Your task to perform on an android device: What's on my calendar tomorrow? Image 0: 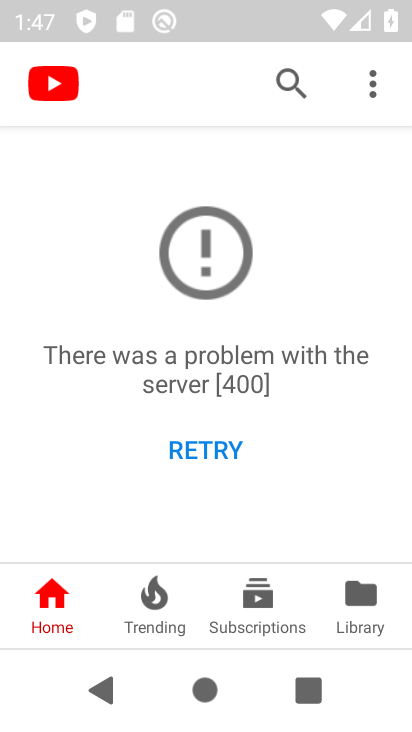
Step 0: click (98, 684)
Your task to perform on an android device: What's on my calendar tomorrow? Image 1: 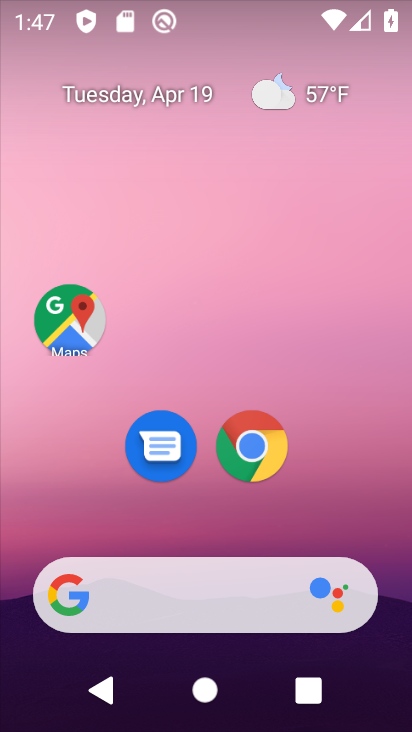
Step 1: drag from (307, 501) to (310, 53)
Your task to perform on an android device: What's on my calendar tomorrow? Image 2: 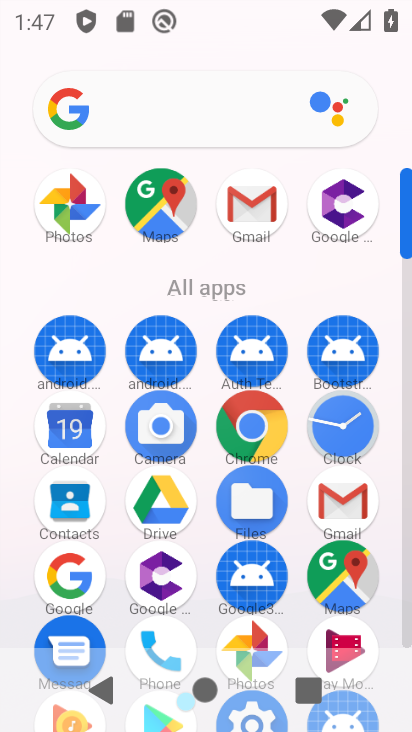
Step 2: click (78, 435)
Your task to perform on an android device: What's on my calendar tomorrow? Image 3: 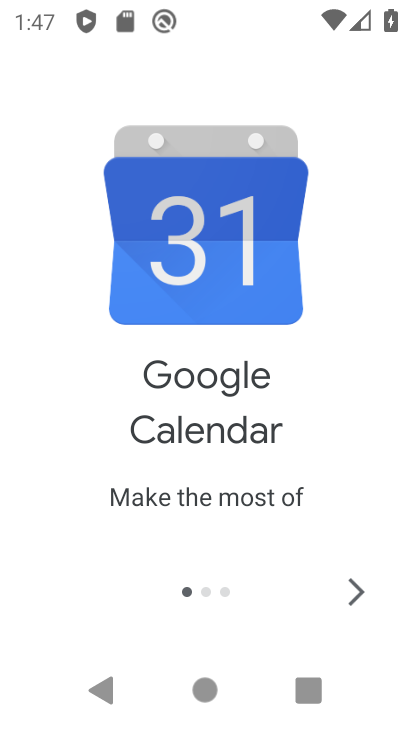
Step 3: click (355, 596)
Your task to perform on an android device: What's on my calendar tomorrow? Image 4: 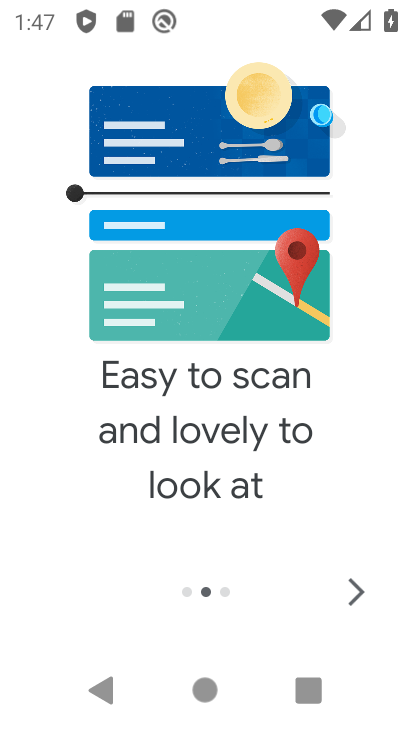
Step 4: click (349, 596)
Your task to perform on an android device: What's on my calendar tomorrow? Image 5: 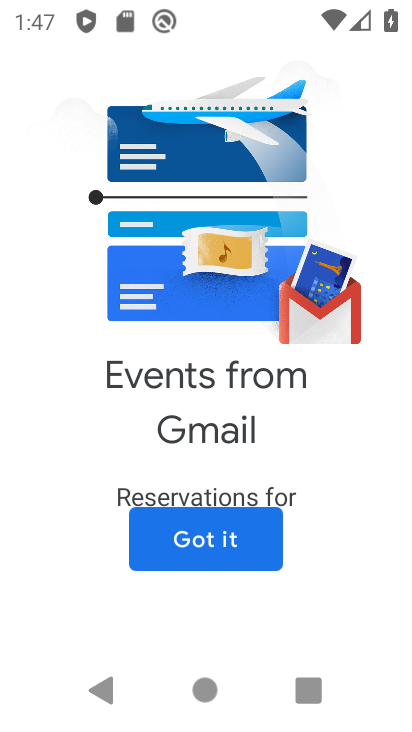
Step 5: click (186, 540)
Your task to perform on an android device: What's on my calendar tomorrow? Image 6: 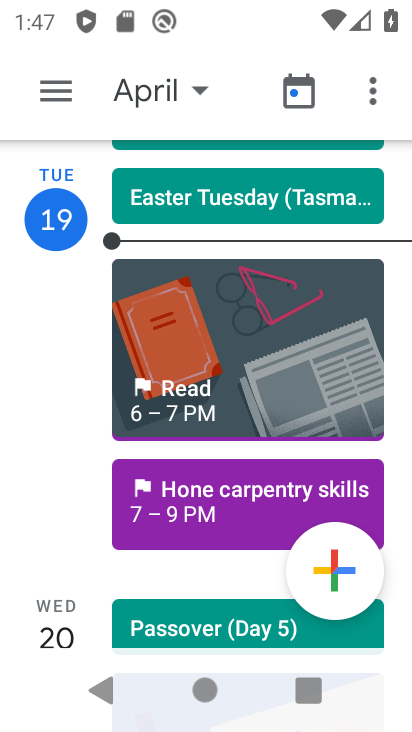
Step 6: click (167, 80)
Your task to perform on an android device: What's on my calendar tomorrow? Image 7: 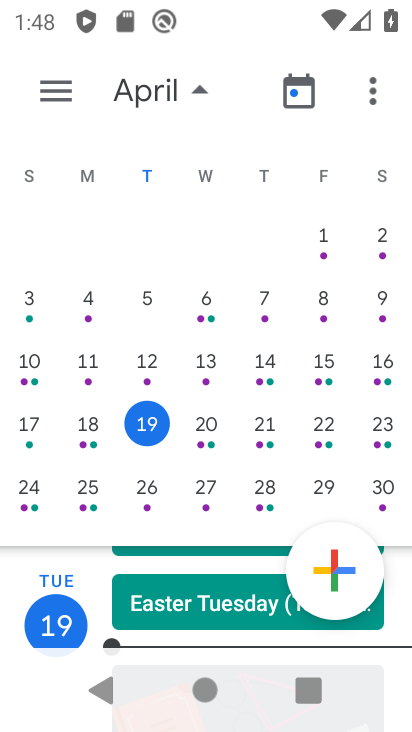
Step 7: click (216, 427)
Your task to perform on an android device: What's on my calendar tomorrow? Image 8: 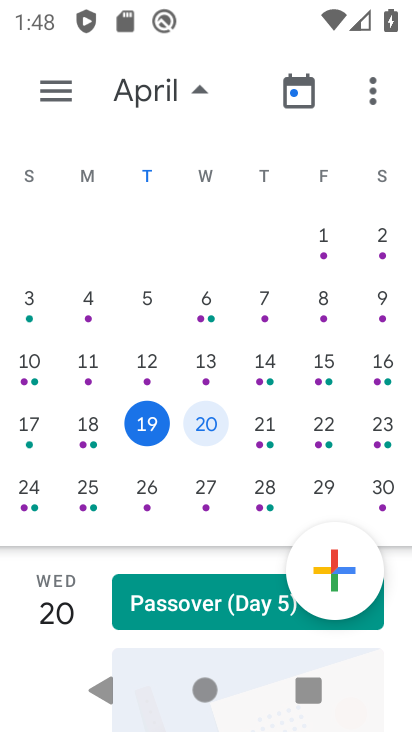
Step 8: task complete